Your task to perform on an android device: find which apps use the phone's location Image 0: 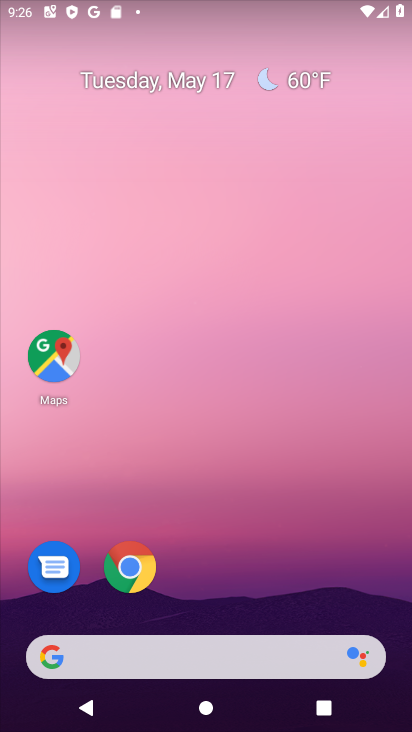
Step 0: drag from (376, 595) to (239, 93)
Your task to perform on an android device: find which apps use the phone's location Image 1: 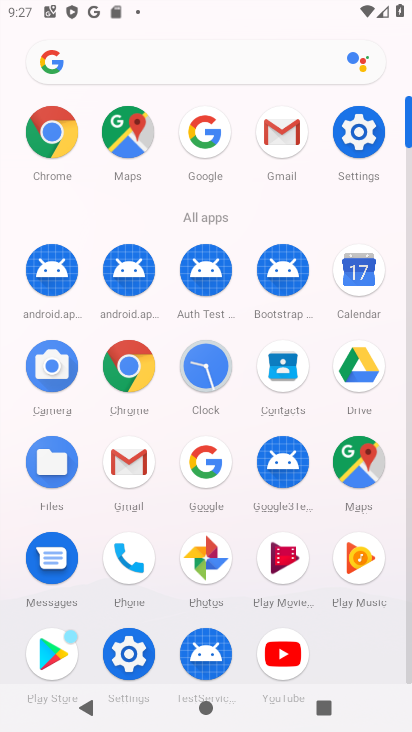
Step 1: click (342, 144)
Your task to perform on an android device: find which apps use the phone's location Image 2: 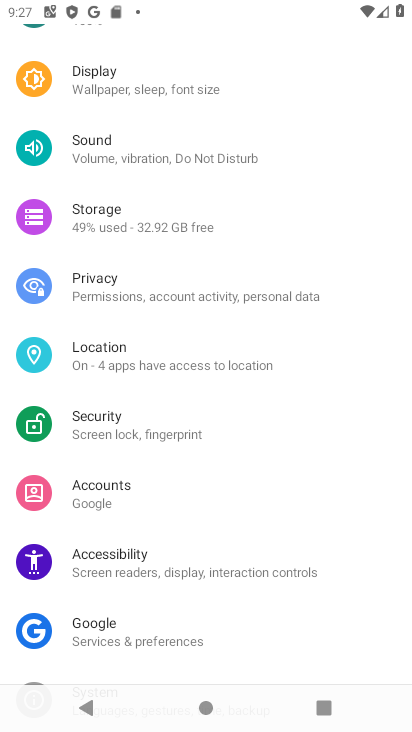
Step 2: click (119, 377)
Your task to perform on an android device: find which apps use the phone's location Image 3: 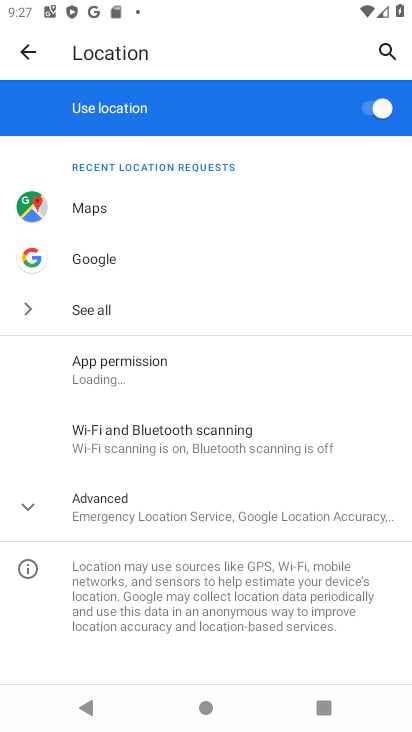
Step 3: click (160, 522)
Your task to perform on an android device: find which apps use the phone's location Image 4: 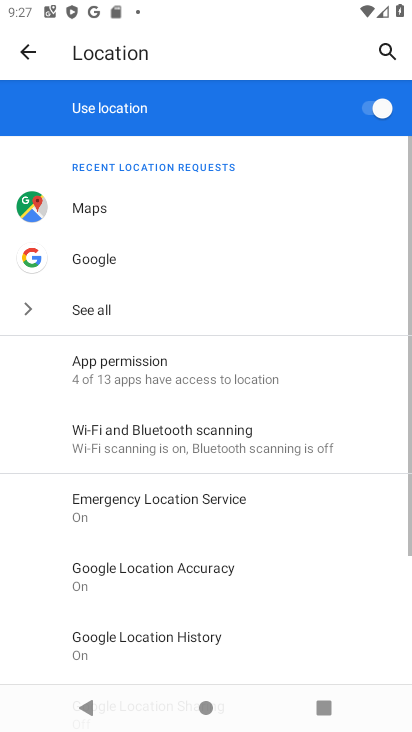
Step 4: click (133, 383)
Your task to perform on an android device: find which apps use the phone's location Image 5: 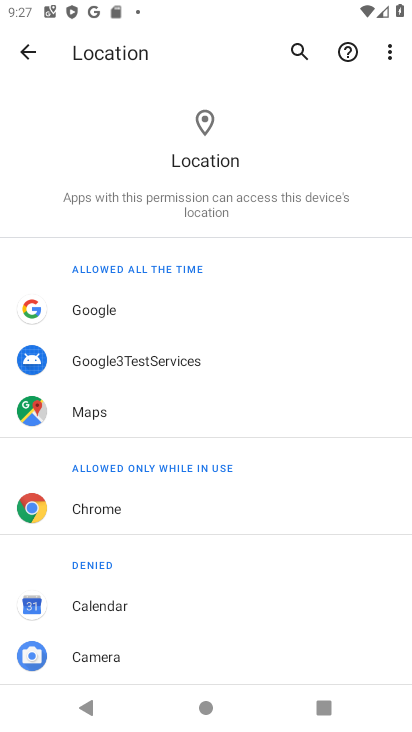
Step 5: drag from (114, 635) to (115, 217)
Your task to perform on an android device: find which apps use the phone's location Image 6: 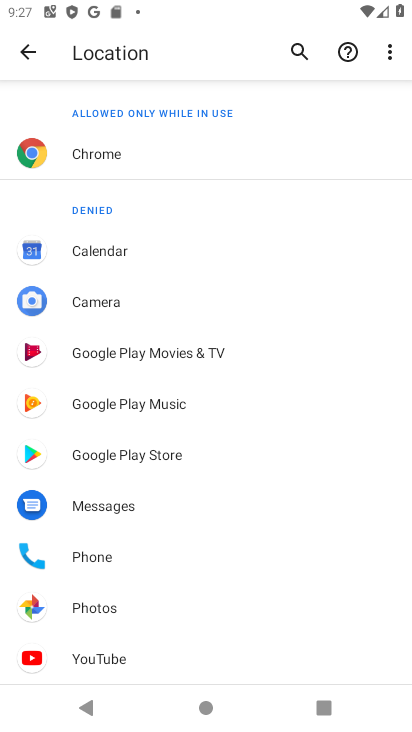
Step 6: click (77, 575)
Your task to perform on an android device: find which apps use the phone's location Image 7: 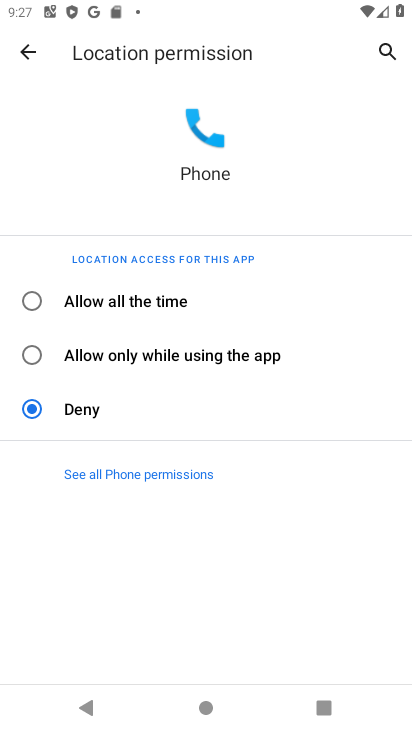
Step 7: click (29, 307)
Your task to perform on an android device: find which apps use the phone's location Image 8: 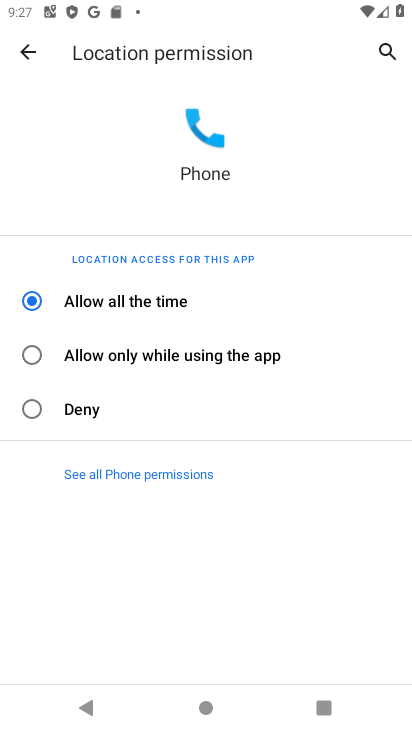
Step 8: task complete